Your task to perform on an android device: Open Google Chrome and click the shortcut for Amazon.com Image 0: 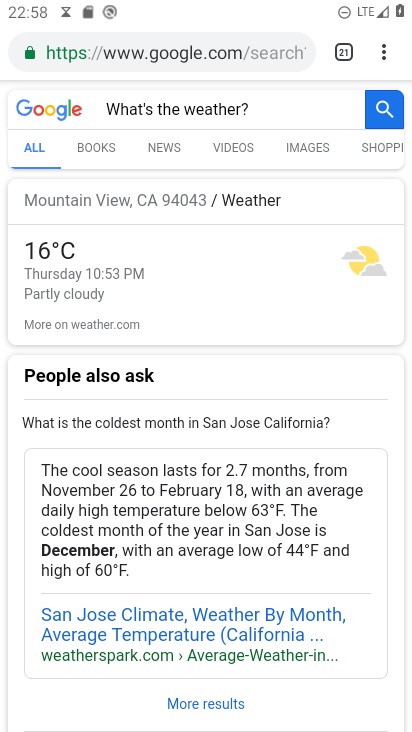
Step 0: click (391, 55)
Your task to perform on an android device: Open Google Chrome and click the shortcut for Amazon.com Image 1: 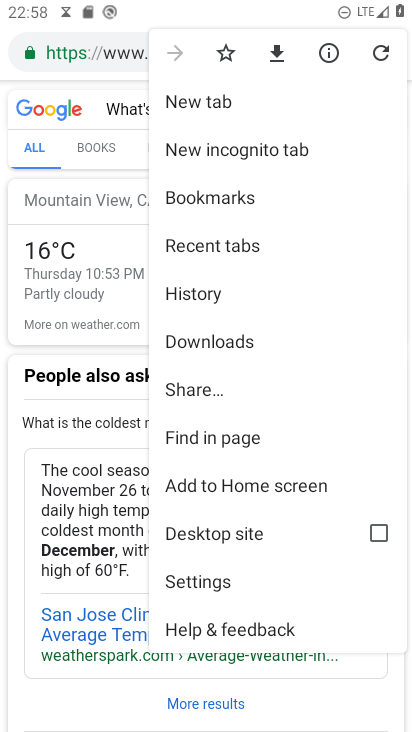
Step 1: click (240, 84)
Your task to perform on an android device: Open Google Chrome and click the shortcut for Amazon.com Image 2: 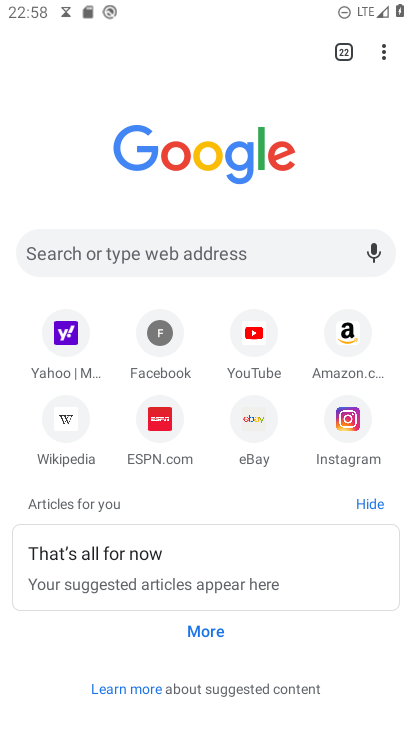
Step 2: click (339, 328)
Your task to perform on an android device: Open Google Chrome and click the shortcut for Amazon.com Image 3: 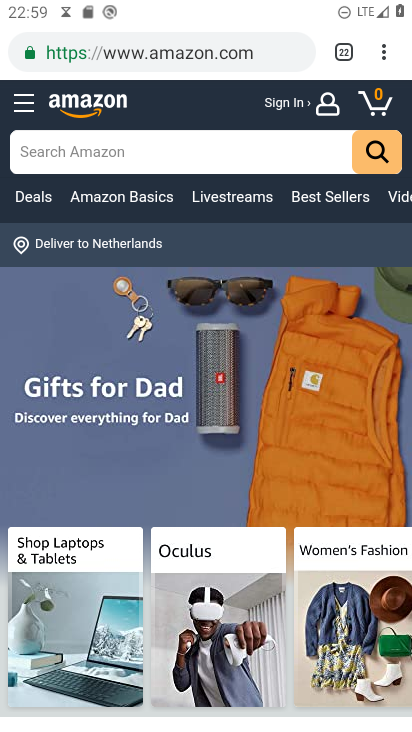
Step 3: task complete